Your task to perform on an android device: What's on my calendar tomorrow? Image 0: 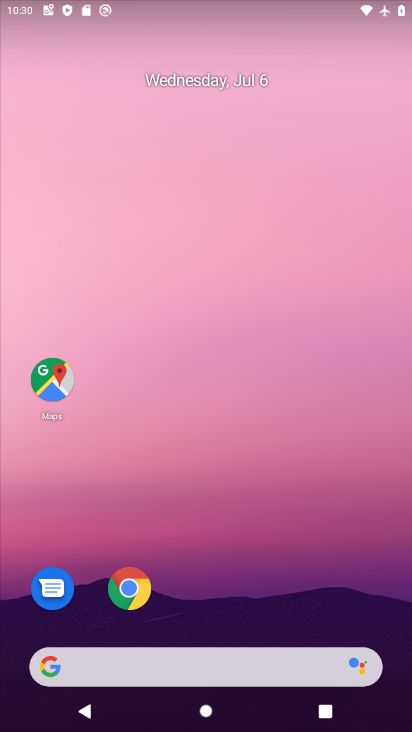
Step 0: drag from (245, 651) to (217, 285)
Your task to perform on an android device: What's on my calendar tomorrow? Image 1: 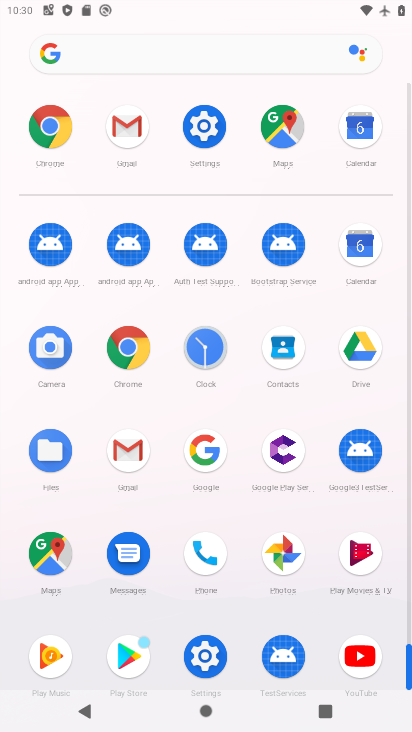
Step 1: click (374, 232)
Your task to perform on an android device: What's on my calendar tomorrow? Image 2: 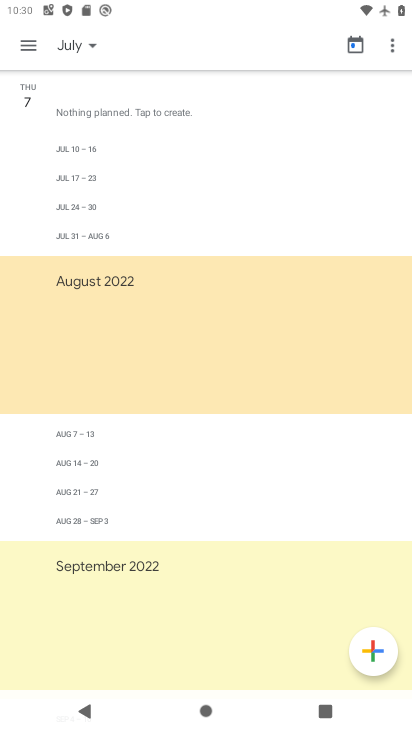
Step 2: click (46, 45)
Your task to perform on an android device: What's on my calendar tomorrow? Image 3: 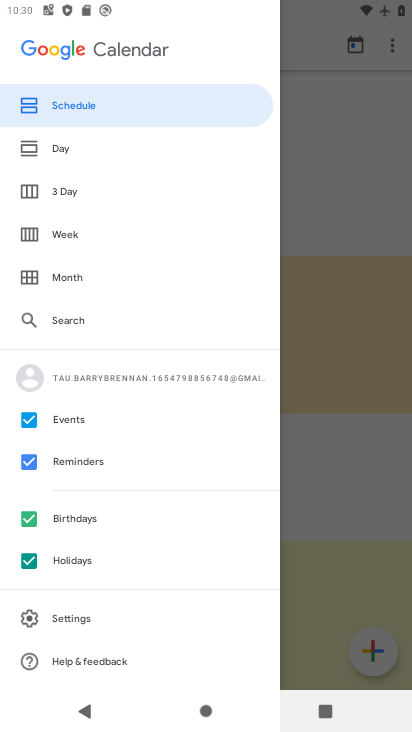
Step 3: click (102, 107)
Your task to perform on an android device: What's on my calendar tomorrow? Image 4: 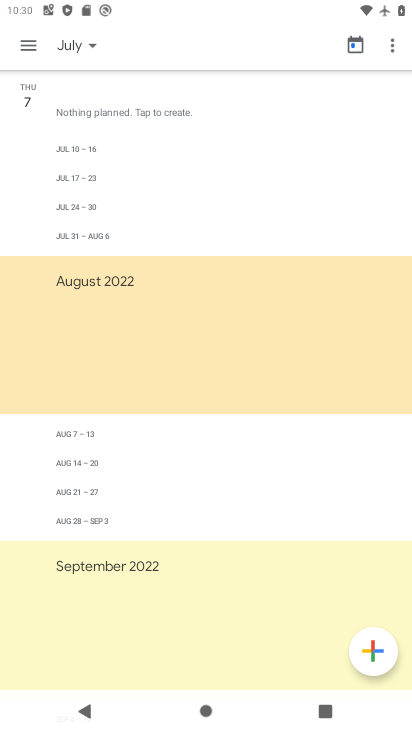
Step 4: click (29, 45)
Your task to perform on an android device: What's on my calendar tomorrow? Image 5: 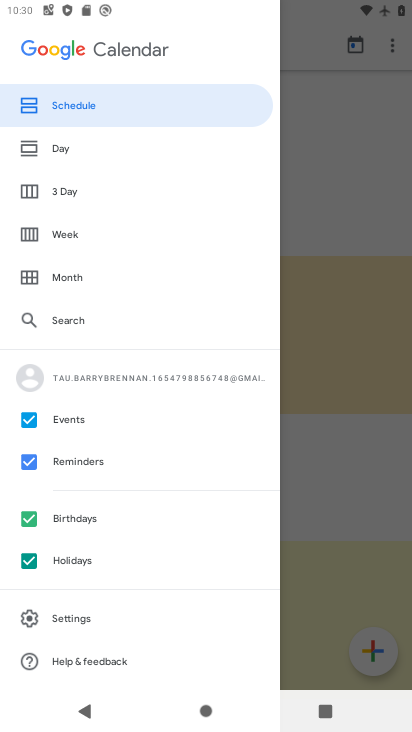
Step 5: click (47, 268)
Your task to perform on an android device: What's on my calendar tomorrow? Image 6: 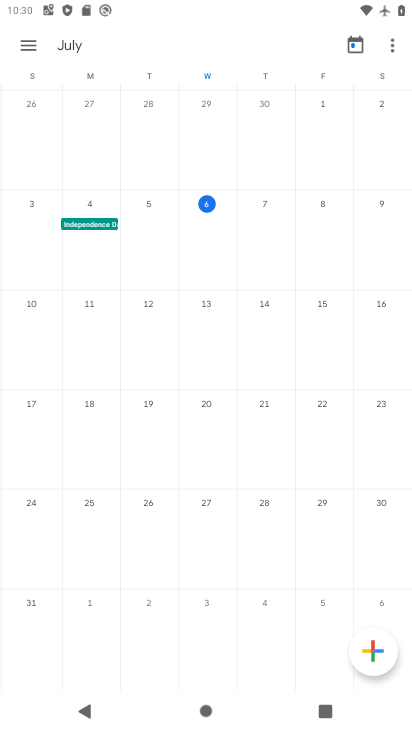
Step 6: click (246, 209)
Your task to perform on an android device: What's on my calendar tomorrow? Image 7: 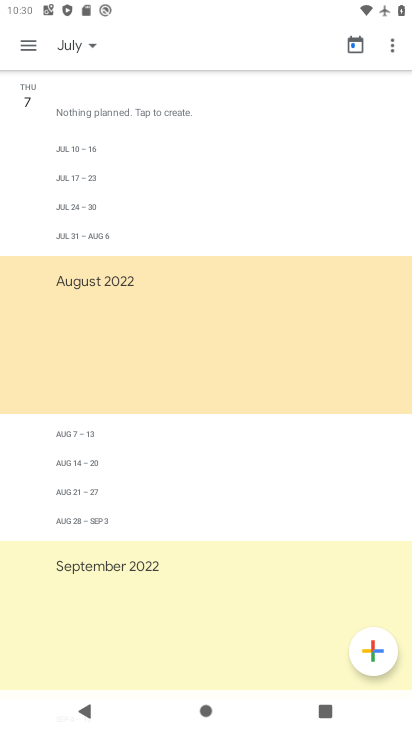
Step 7: task complete